Your task to perform on an android device: Open Youtube and go to "Your channel" Image 0: 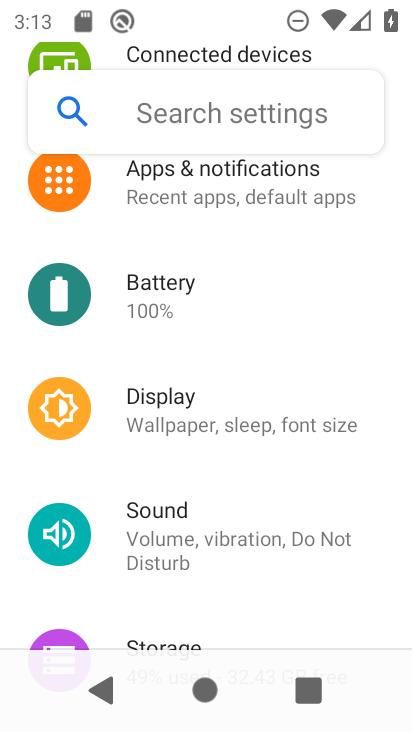
Step 0: press home button
Your task to perform on an android device: Open Youtube and go to "Your channel" Image 1: 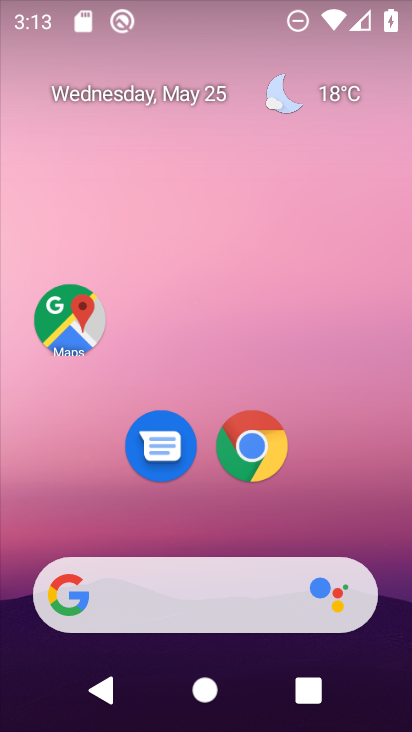
Step 1: drag from (180, 589) to (283, 153)
Your task to perform on an android device: Open Youtube and go to "Your channel" Image 2: 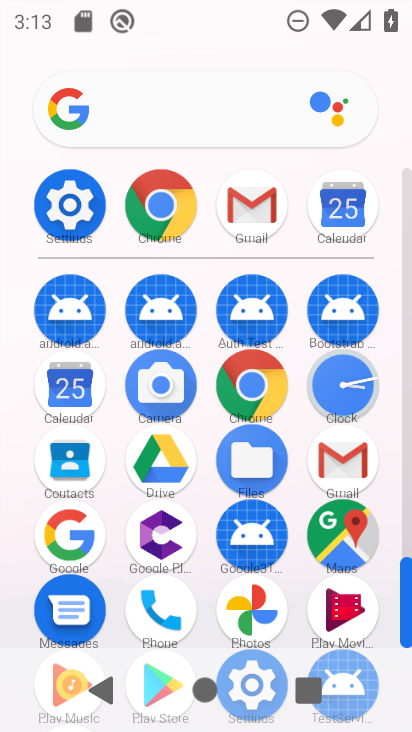
Step 2: drag from (273, 605) to (299, 206)
Your task to perform on an android device: Open Youtube and go to "Your channel" Image 3: 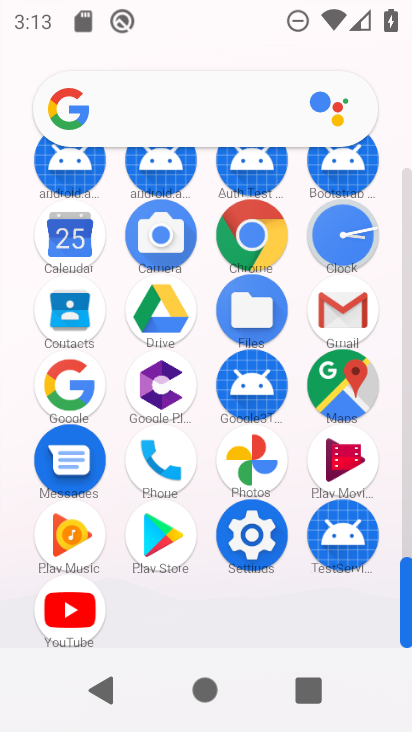
Step 3: click (85, 618)
Your task to perform on an android device: Open Youtube and go to "Your channel" Image 4: 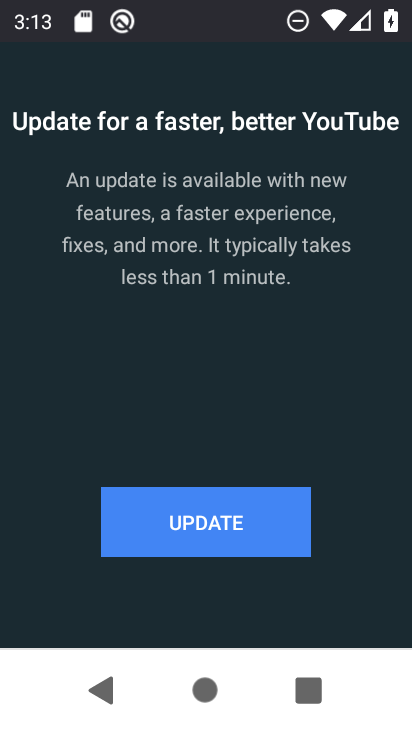
Step 4: click (184, 529)
Your task to perform on an android device: Open Youtube and go to "Your channel" Image 5: 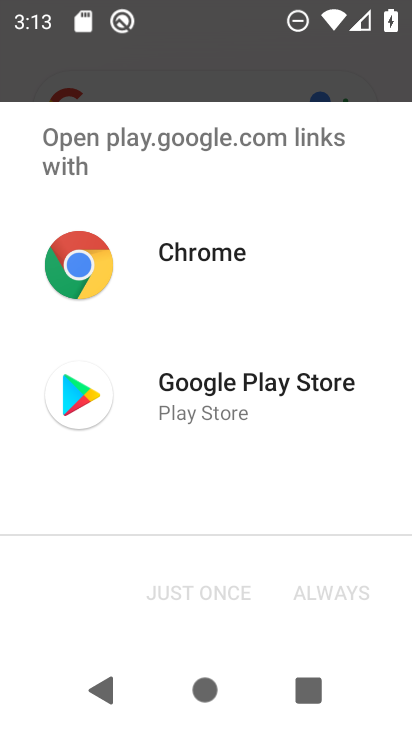
Step 5: click (211, 427)
Your task to perform on an android device: Open Youtube and go to "Your channel" Image 6: 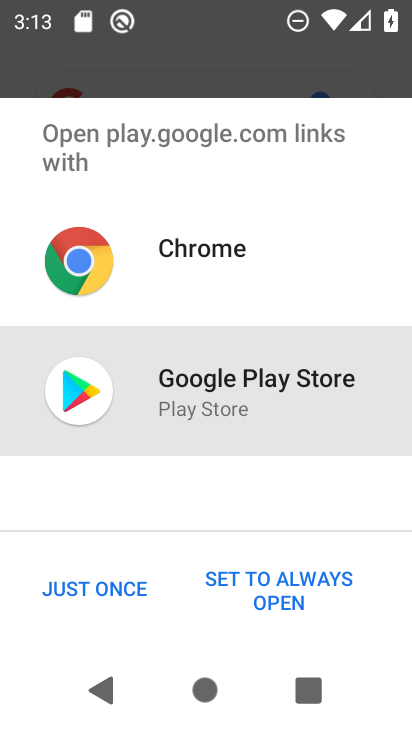
Step 6: click (112, 594)
Your task to perform on an android device: Open Youtube and go to "Your channel" Image 7: 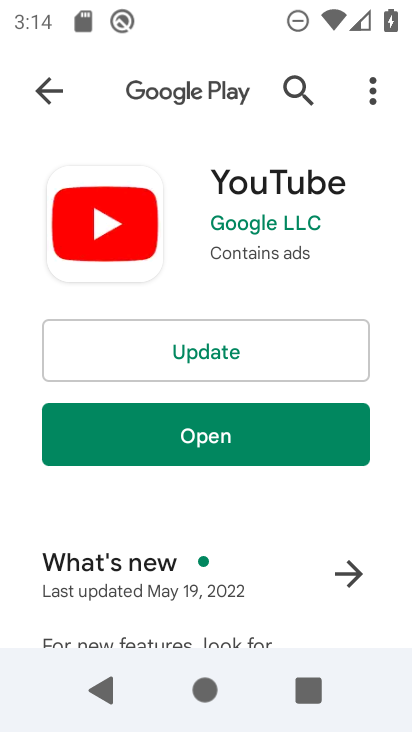
Step 7: click (253, 355)
Your task to perform on an android device: Open Youtube and go to "Your channel" Image 8: 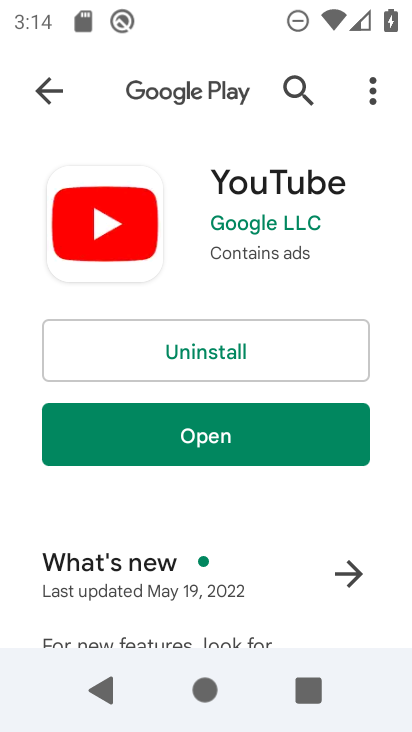
Step 8: click (312, 420)
Your task to perform on an android device: Open Youtube and go to "Your channel" Image 9: 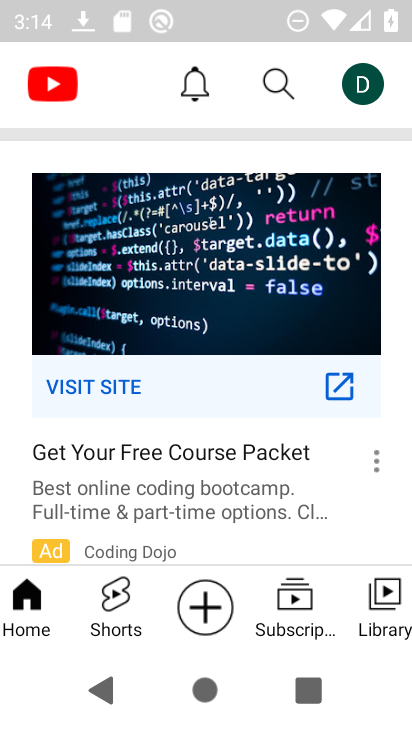
Step 9: click (375, 594)
Your task to perform on an android device: Open Youtube and go to "Your channel" Image 10: 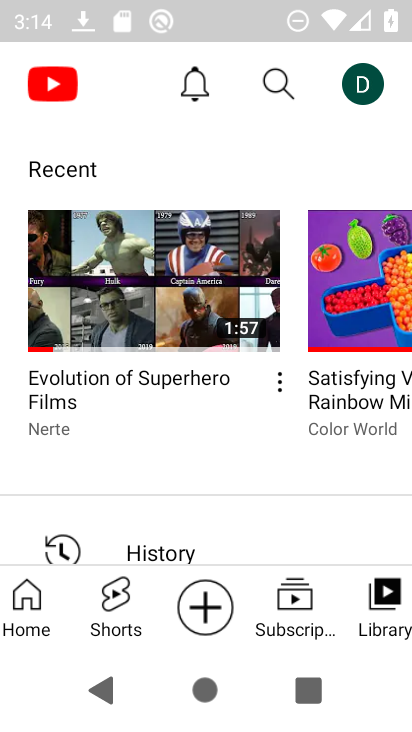
Step 10: click (381, 92)
Your task to perform on an android device: Open Youtube and go to "Your channel" Image 11: 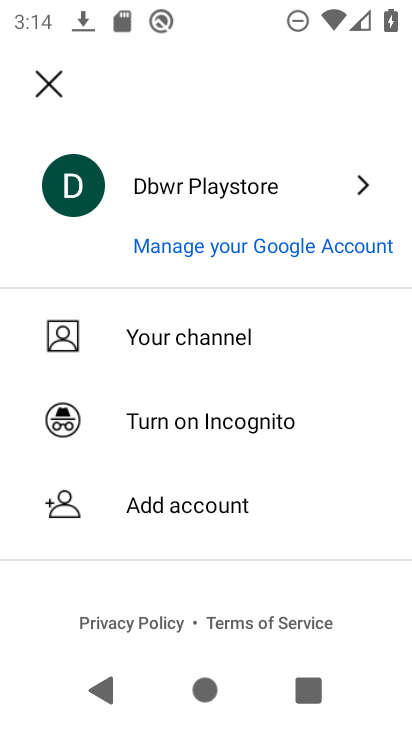
Step 11: click (159, 330)
Your task to perform on an android device: Open Youtube and go to "Your channel" Image 12: 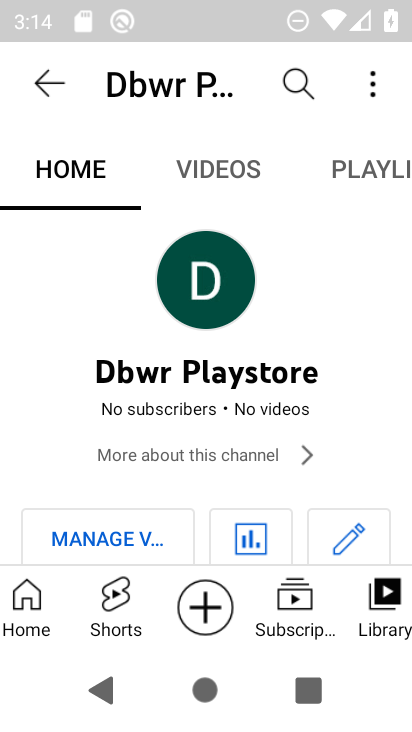
Step 12: task complete